Your task to perform on an android device: View the shopping cart on target.com. Image 0: 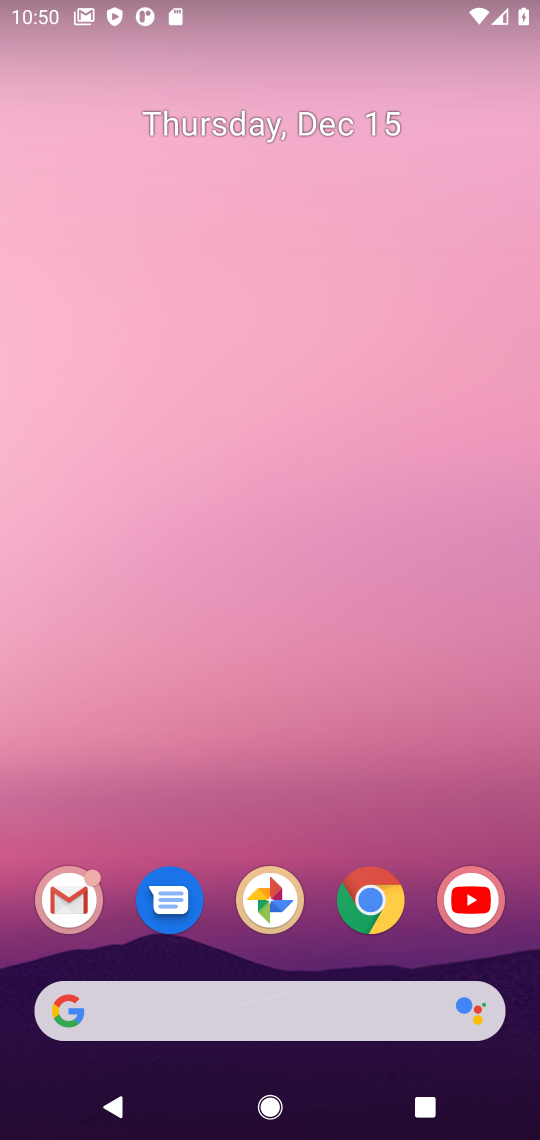
Step 0: click (371, 906)
Your task to perform on an android device: View the shopping cart on target.com. Image 1: 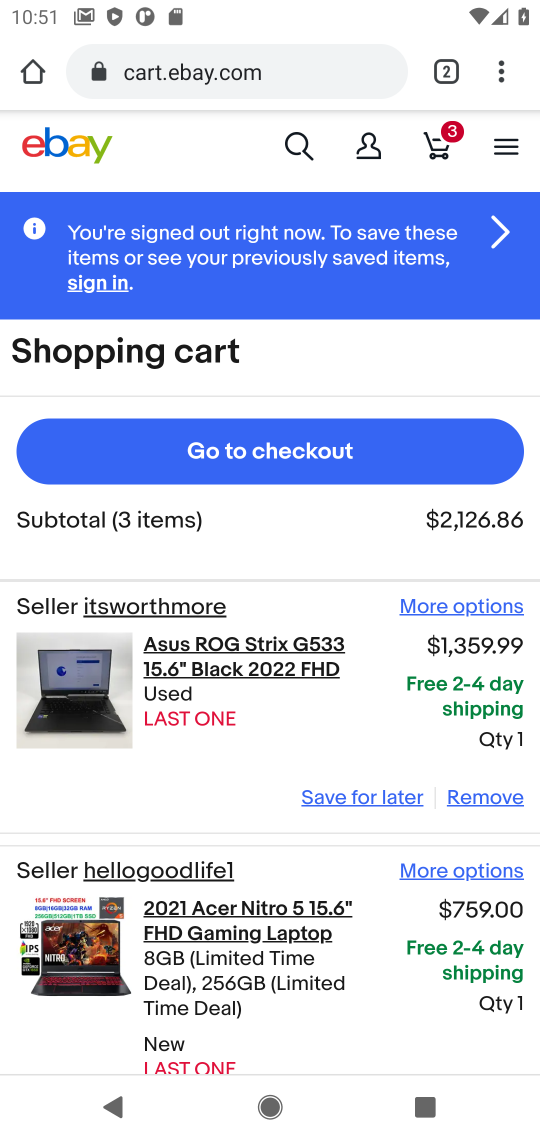
Step 1: click (202, 77)
Your task to perform on an android device: View the shopping cart on target.com. Image 2: 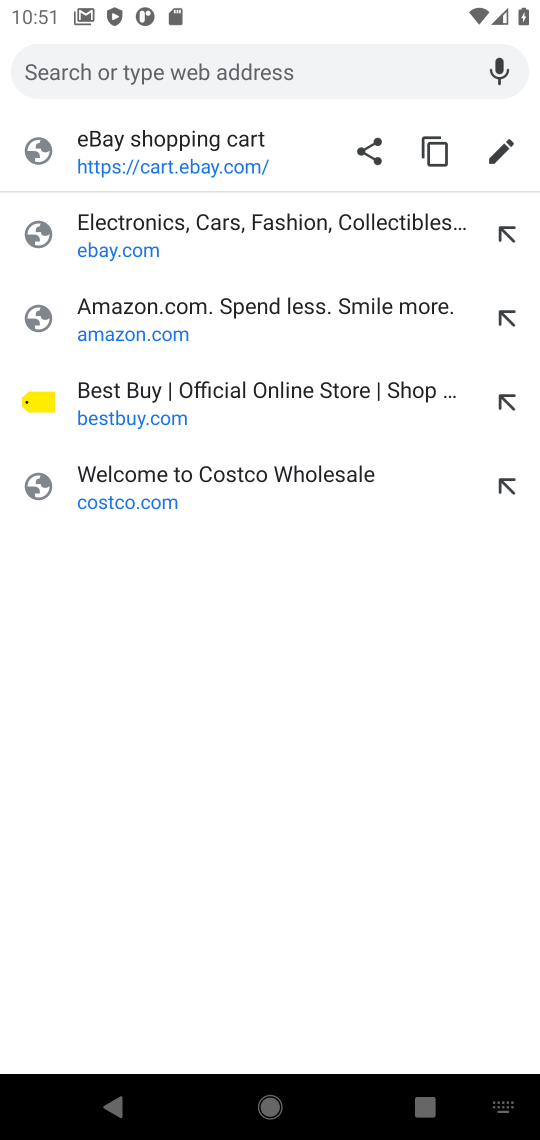
Step 2: type "target.com"
Your task to perform on an android device: View the shopping cart on target.com. Image 3: 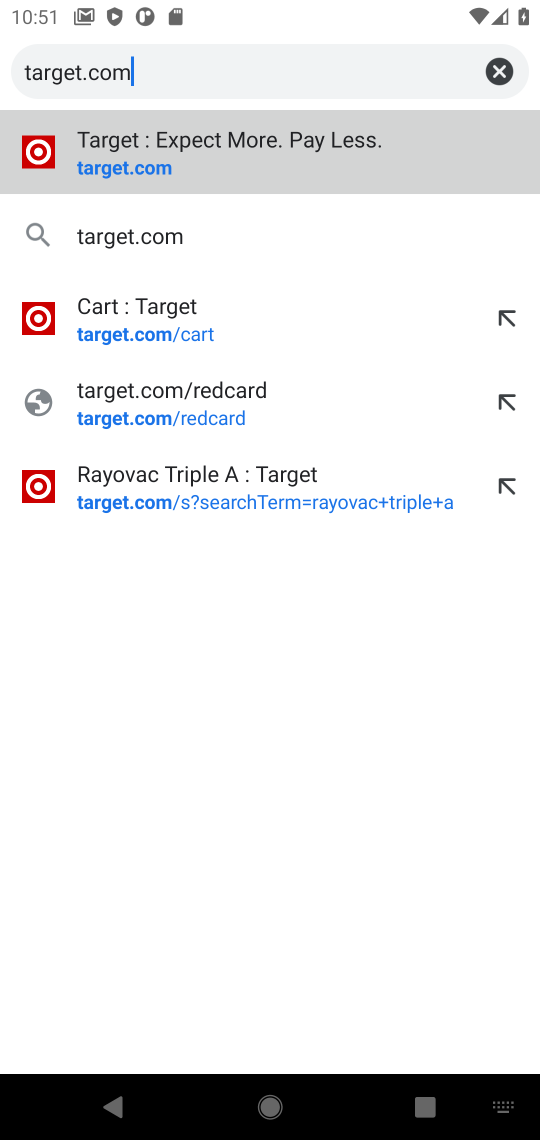
Step 3: click (176, 154)
Your task to perform on an android device: View the shopping cart on target.com. Image 4: 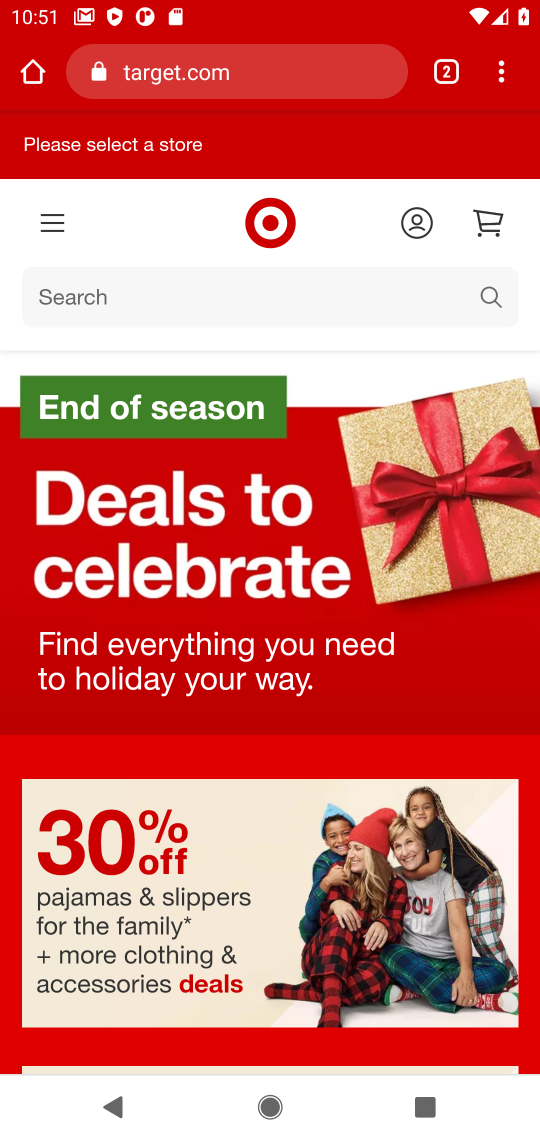
Step 4: click (494, 233)
Your task to perform on an android device: View the shopping cart on target.com. Image 5: 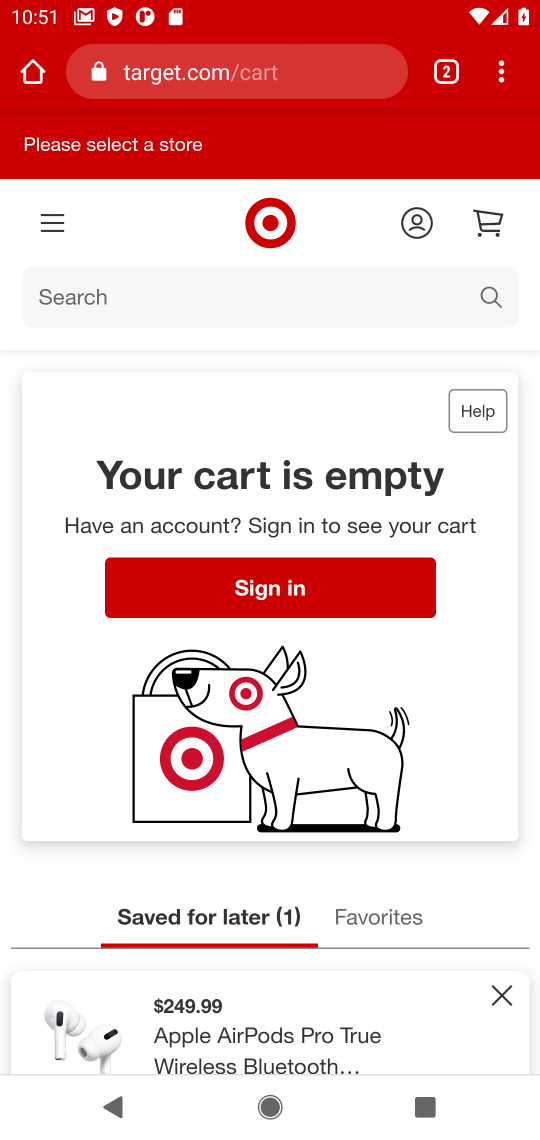
Step 5: task complete